Your task to perform on an android device: Search for the new Apple Watch on Best Buy Image 0: 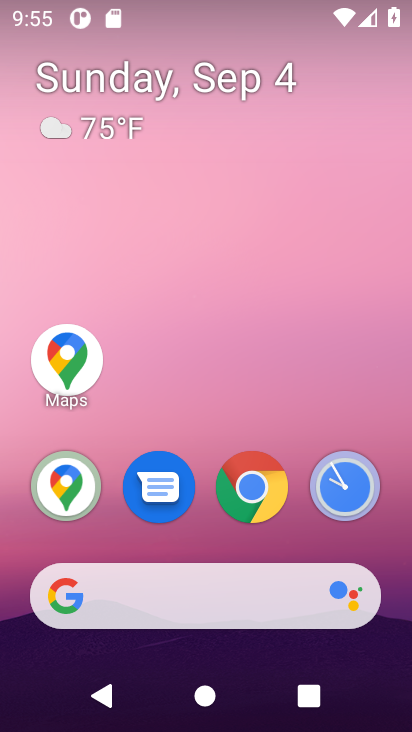
Step 0: click (238, 471)
Your task to perform on an android device: Search for the new Apple Watch on Best Buy Image 1: 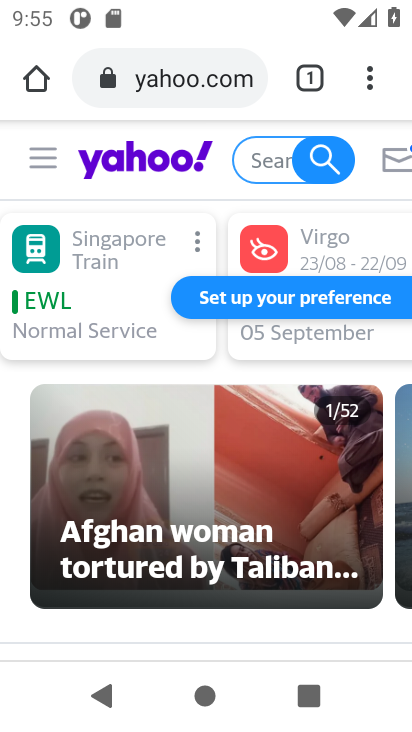
Step 1: click (141, 305)
Your task to perform on an android device: Search for the new Apple Watch on Best Buy Image 2: 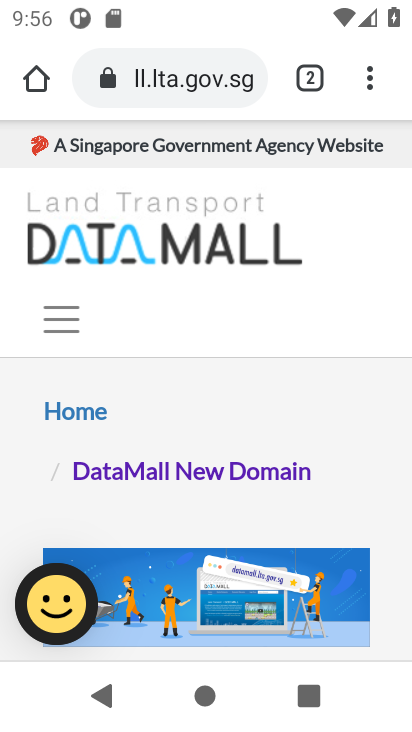
Step 2: task complete